Your task to perform on an android device: Open internet settings Image 0: 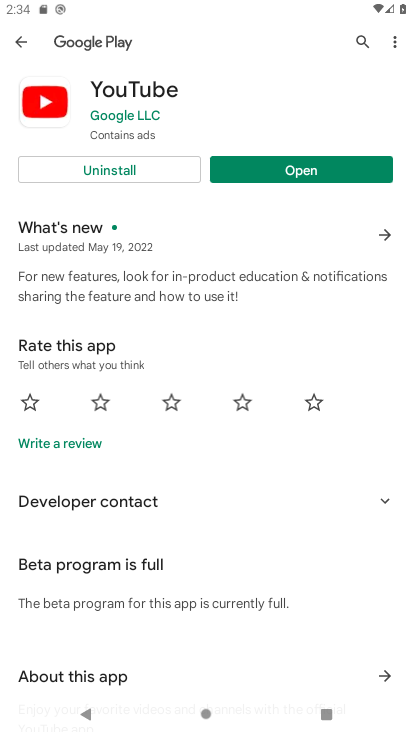
Step 0: press home button
Your task to perform on an android device: Open internet settings Image 1: 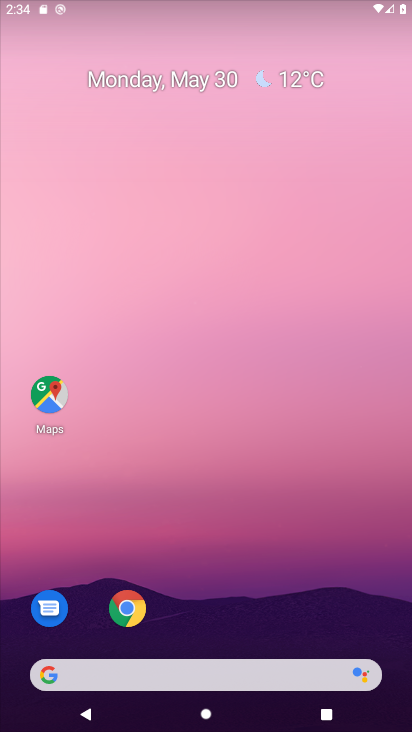
Step 1: drag from (231, 484) to (135, 2)
Your task to perform on an android device: Open internet settings Image 2: 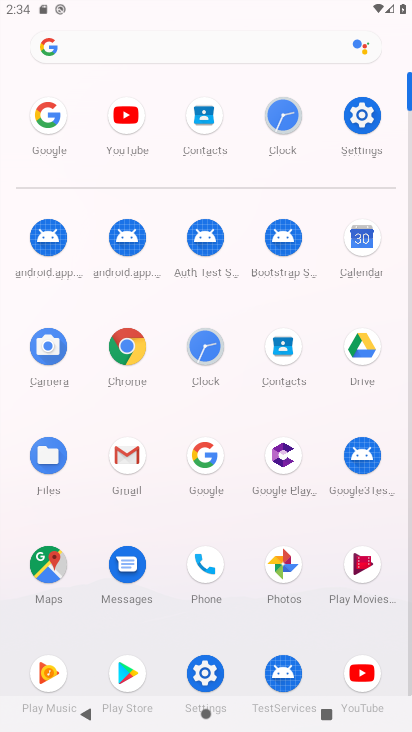
Step 2: click (353, 106)
Your task to perform on an android device: Open internet settings Image 3: 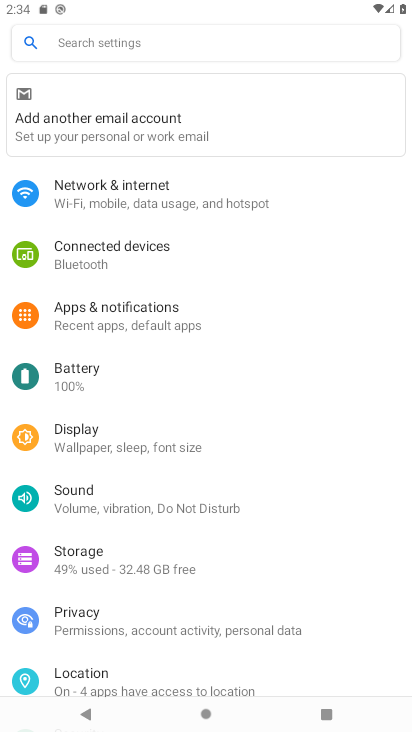
Step 3: click (160, 203)
Your task to perform on an android device: Open internet settings Image 4: 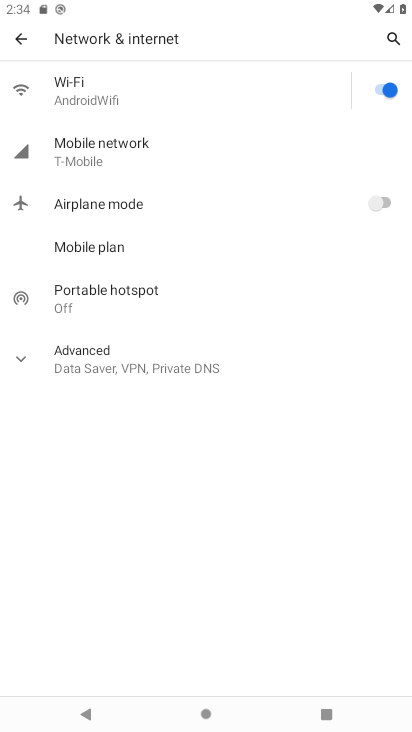
Step 4: task complete